Your task to perform on an android device: turn off airplane mode Image 0: 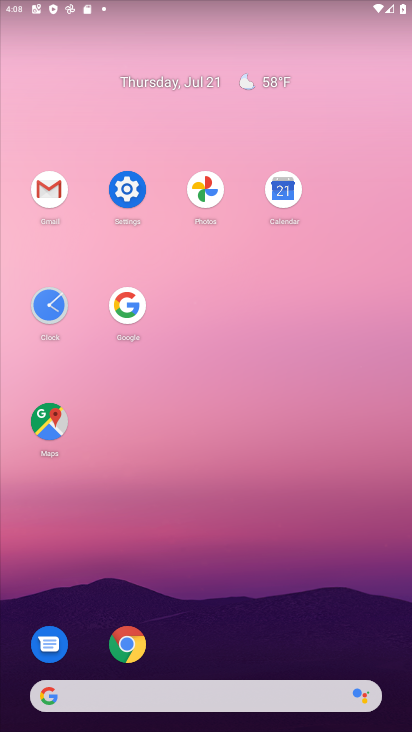
Step 0: click (122, 190)
Your task to perform on an android device: turn off airplane mode Image 1: 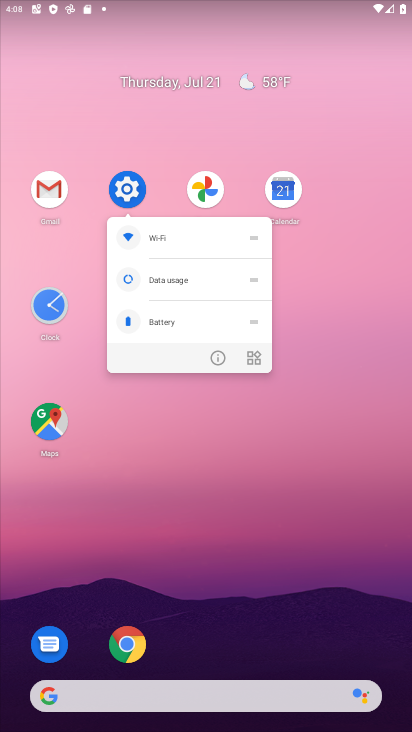
Step 1: click (120, 187)
Your task to perform on an android device: turn off airplane mode Image 2: 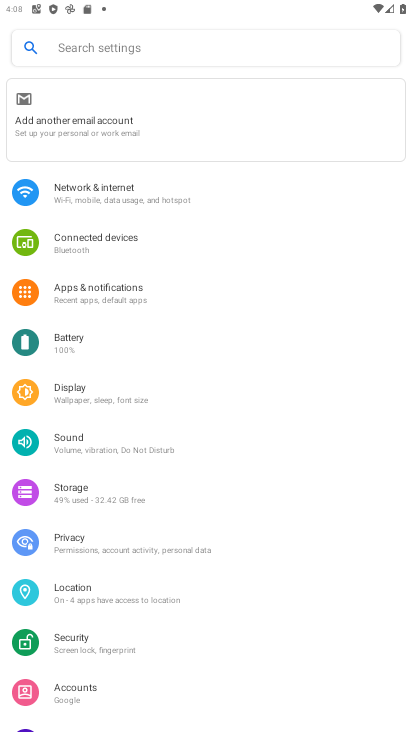
Step 2: click (120, 187)
Your task to perform on an android device: turn off airplane mode Image 3: 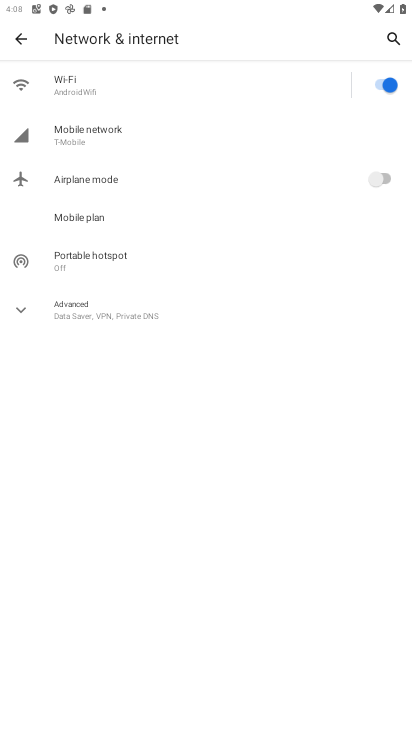
Step 3: task complete